Your task to perform on an android device: Open network settings Image 0: 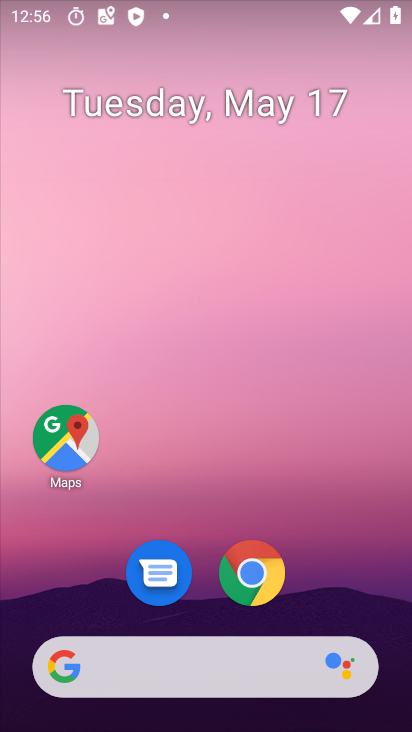
Step 0: drag from (170, 723) to (189, 40)
Your task to perform on an android device: Open network settings Image 1: 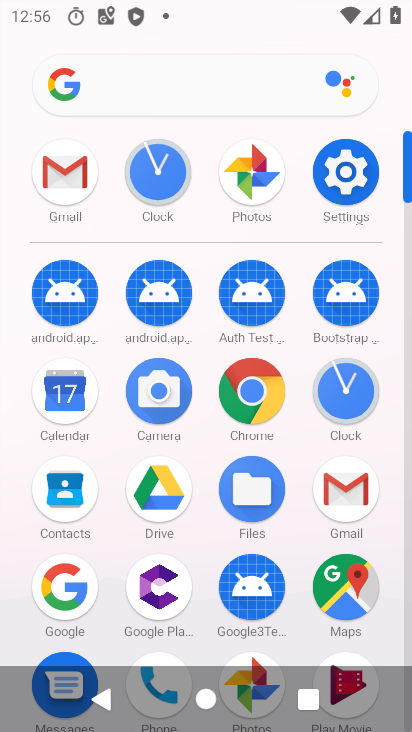
Step 1: click (347, 173)
Your task to perform on an android device: Open network settings Image 2: 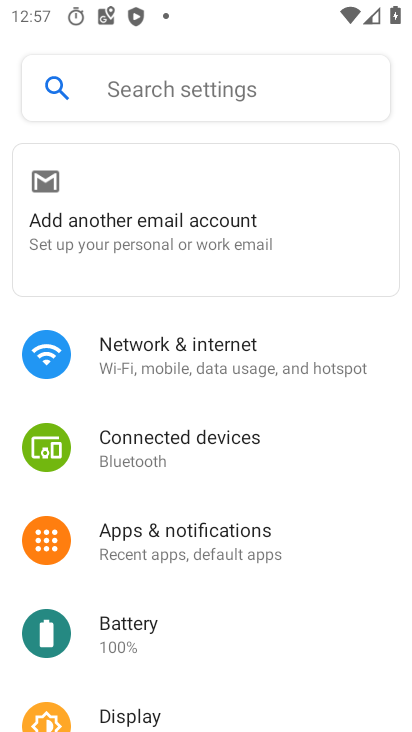
Step 2: click (228, 350)
Your task to perform on an android device: Open network settings Image 3: 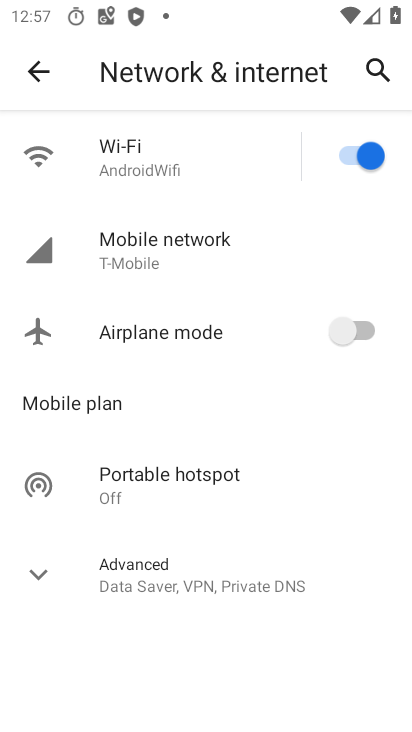
Step 3: task complete